Your task to perform on an android device: set an alarm Image 0: 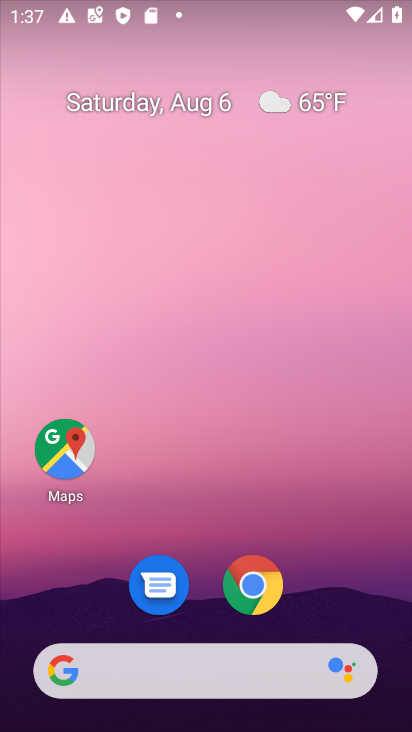
Step 0: click (190, 687)
Your task to perform on an android device: set an alarm Image 1: 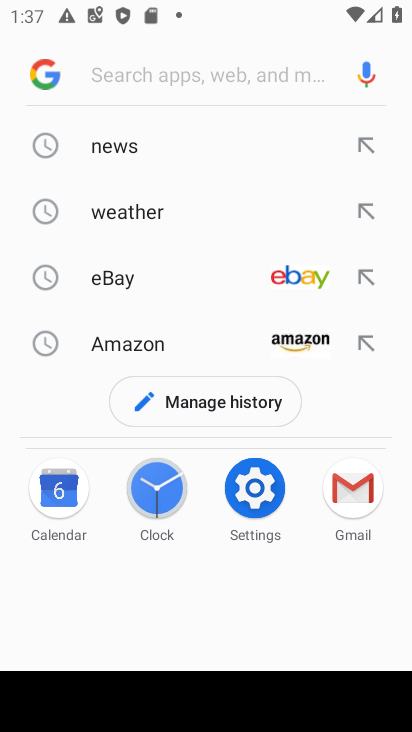
Step 1: click (191, 276)
Your task to perform on an android device: set an alarm Image 2: 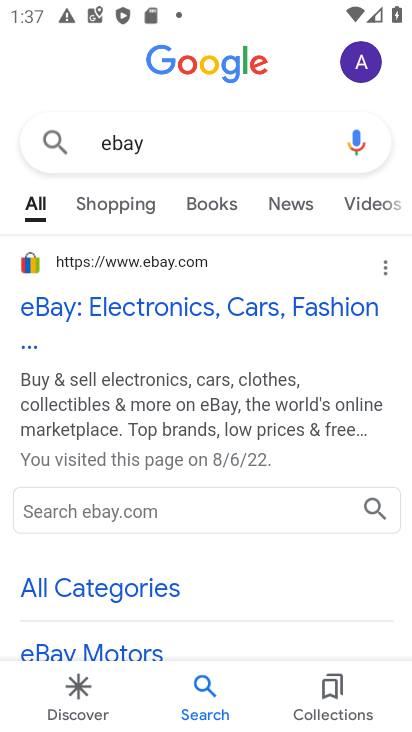
Step 2: click (51, 306)
Your task to perform on an android device: set an alarm Image 3: 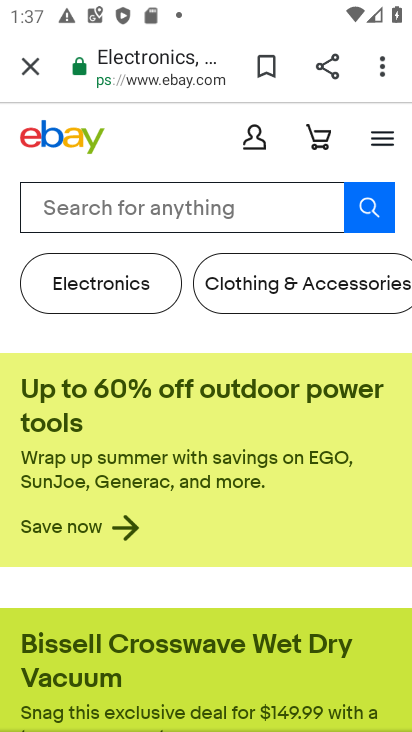
Step 3: task complete